Your task to perform on an android device: Go to Yahoo.com Image 0: 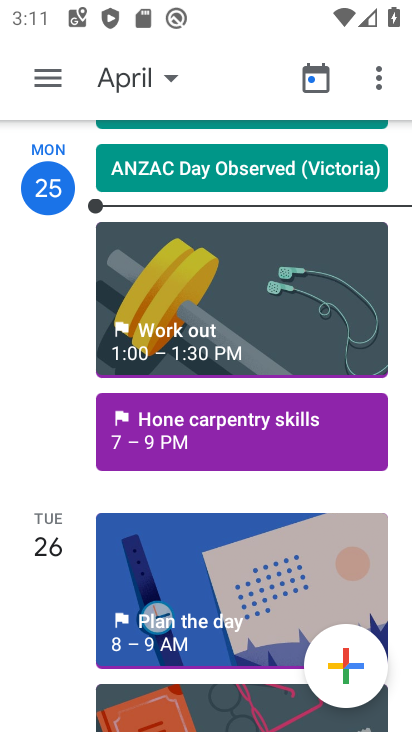
Step 0: press home button
Your task to perform on an android device: Go to Yahoo.com Image 1: 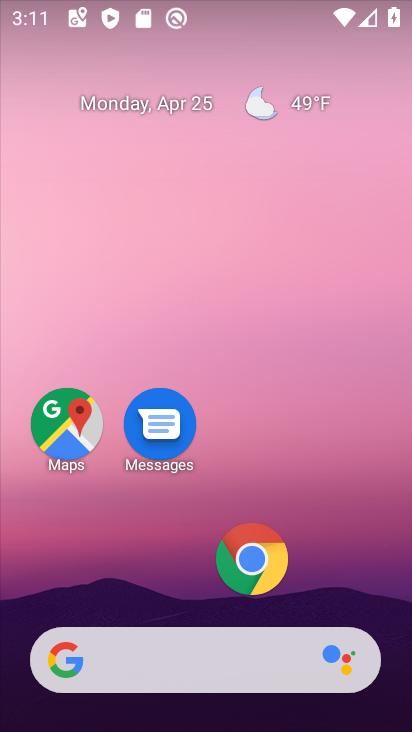
Step 1: click (168, 665)
Your task to perform on an android device: Go to Yahoo.com Image 2: 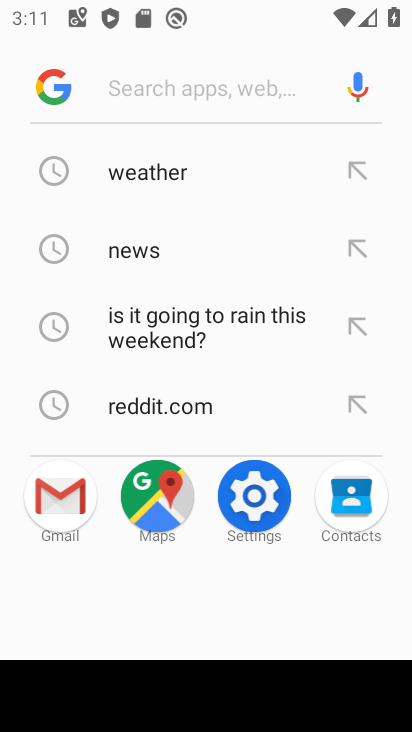
Step 2: type "Yahoo.com"
Your task to perform on an android device: Go to Yahoo.com Image 3: 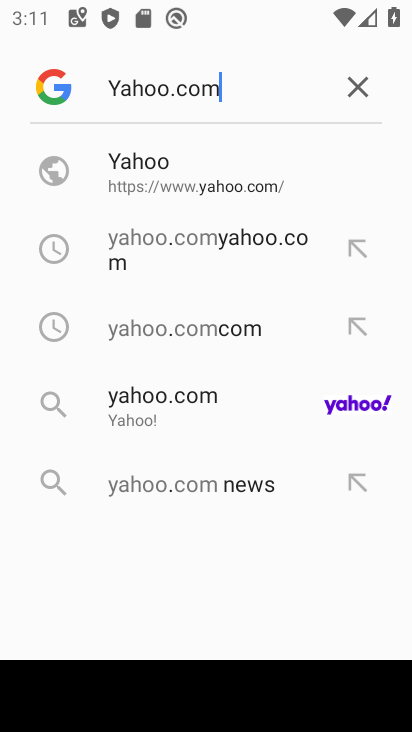
Step 3: click (211, 164)
Your task to perform on an android device: Go to Yahoo.com Image 4: 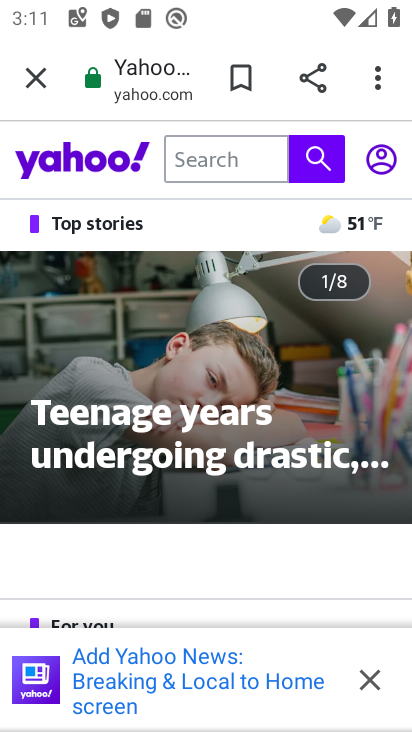
Step 4: click (374, 677)
Your task to perform on an android device: Go to Yahoo.com Image 5: 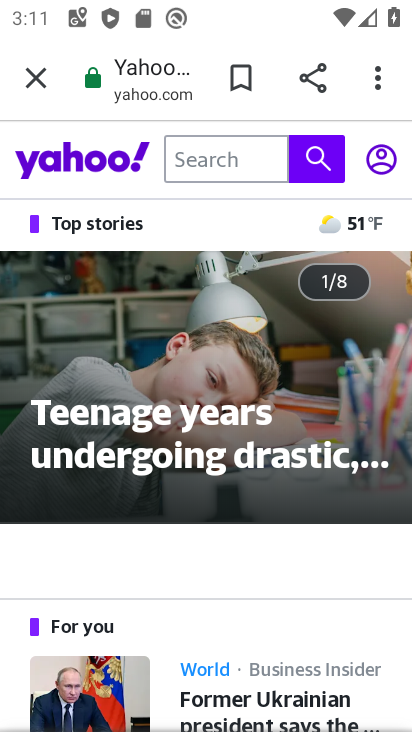
Step 5: task complete